Your task to perform on an android device: toggle wifi Image 0: 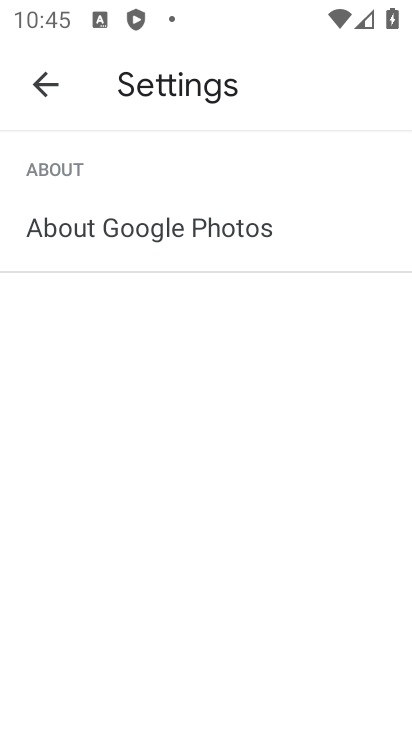
Step 0: drag from (271, 0) to (230, 612)
Your task to perform on an android device: toggle wifi Image 1: 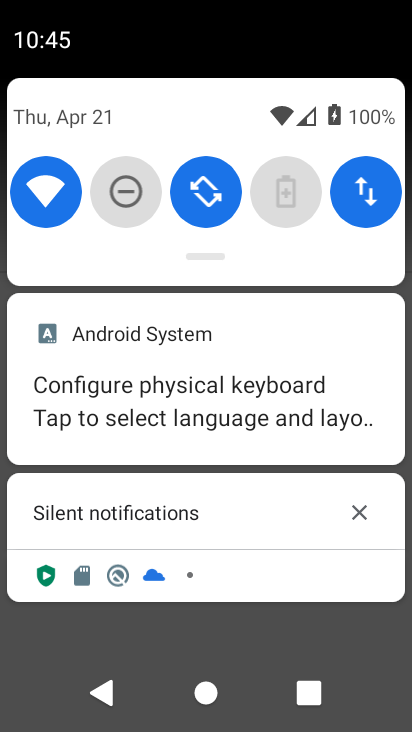
Step 1: click (51, 185)
Your task to perform on an android device: toggle wifi Image 2: 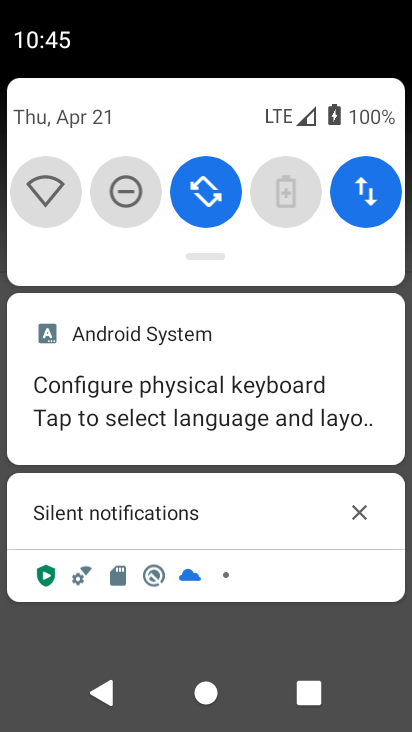
Step 2: task complete